Your task to perform on an android device: Open notification settings Image 0: 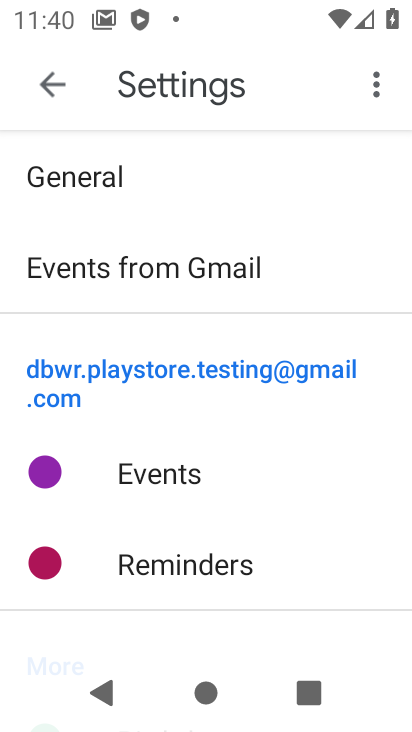
Step 0: press home button
Your task to perform on an android device: Open notification settings Image 1: 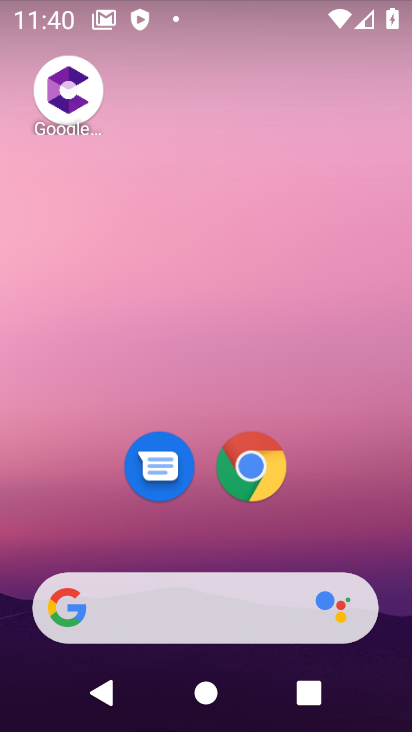
Step 1: drag from (115, 565) to (214, 108)
Your task to perform on an android device: Open notification settings Image 2: 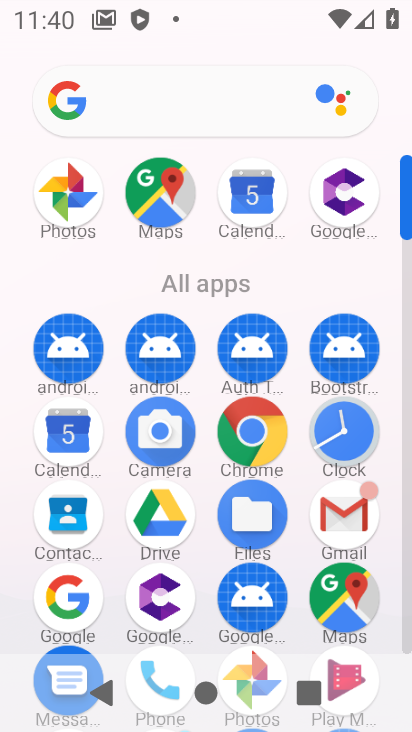
Step 2: drag from (127, 669) to (208, 294)
Your task to perform on an android device: Open notification settings Image 3: 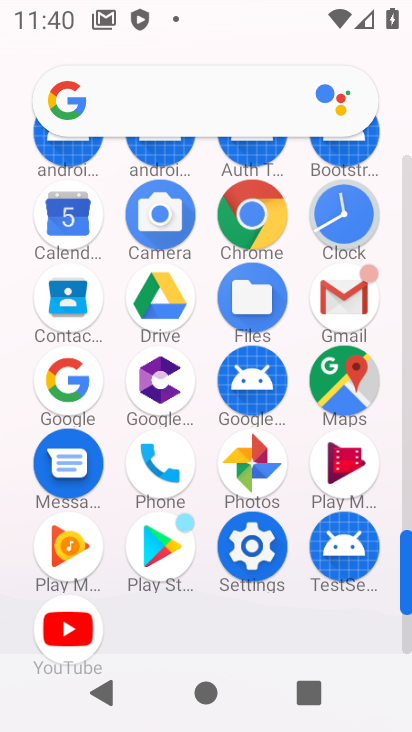
Step 3: click (256, 560)
Your task to perform on an android device: Open notification settings Image 4: 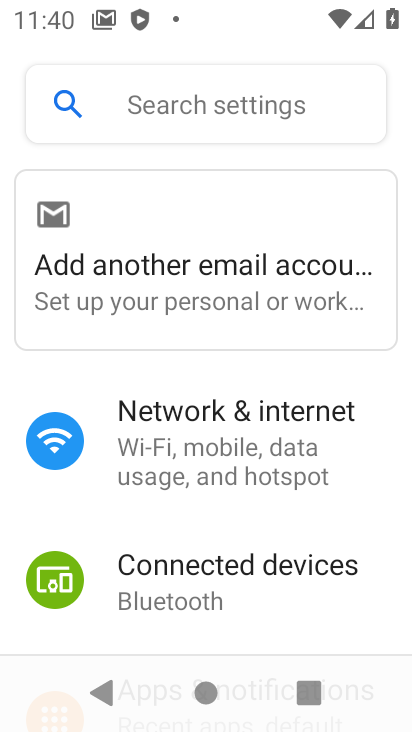
Step 4: drag from (184, 636) to (316, 198)
Your task to perform on an android device: Open notification settings Image 5: 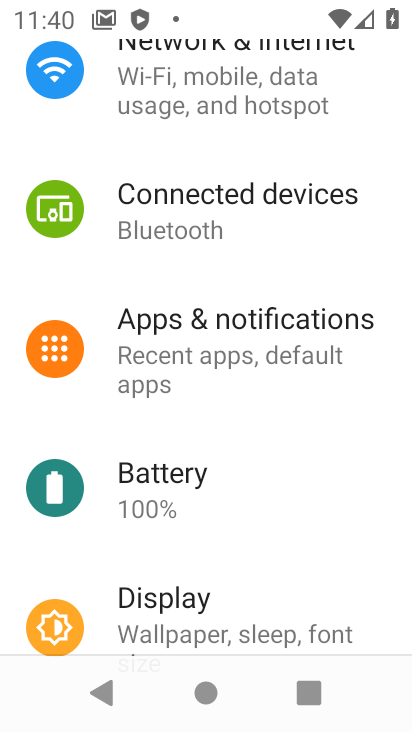
Step 5: click (264, 343)
Your task to perform on an android device: Open notification settings Image 6: 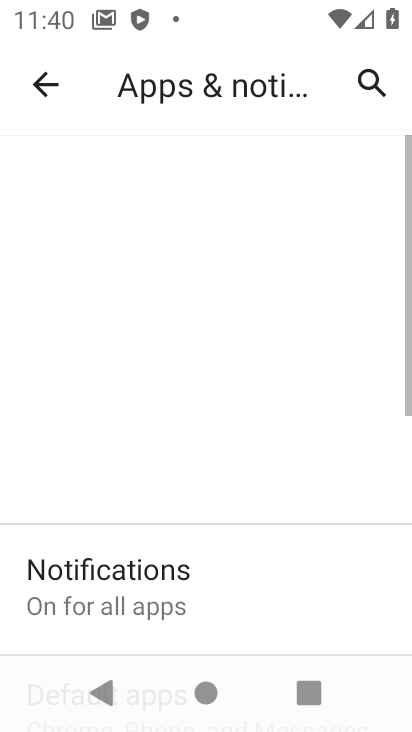
Step 6: drag from (142, 571) to (231, 216)
Your task to perform on an android device: Open notification settings Image 7: 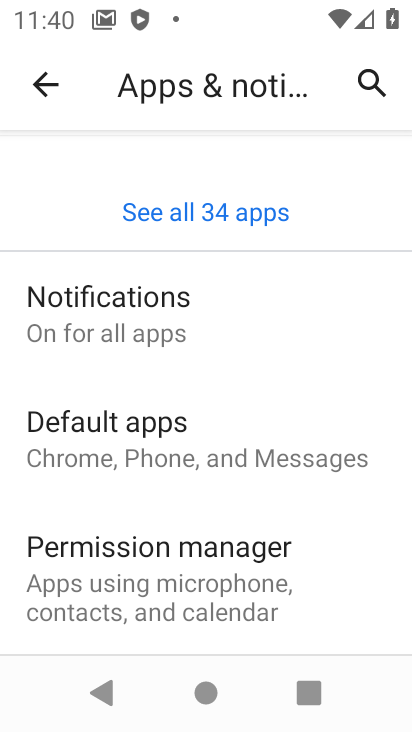
Step 7: click (188, 324)
Your task to perform on an android device: Open notification settings Image 8: 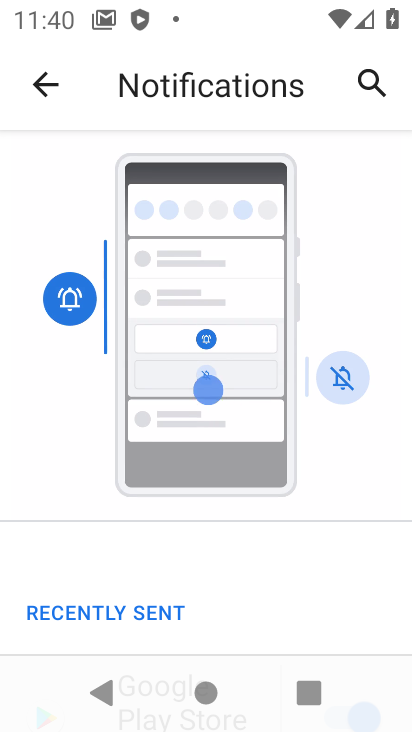
Step 8: task complete